Your task to perform on an android device: Open calendar and show me the third week of next month Image 0: 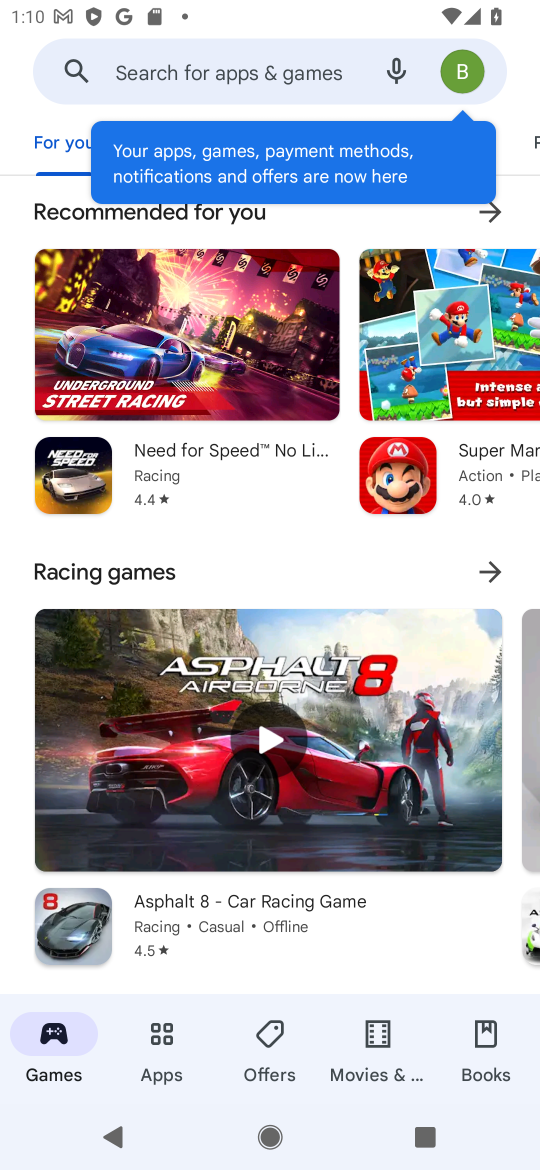
Step 0: press home button
Your task to perform on an android device: Open calendar and show me the third week of next month Image 1: 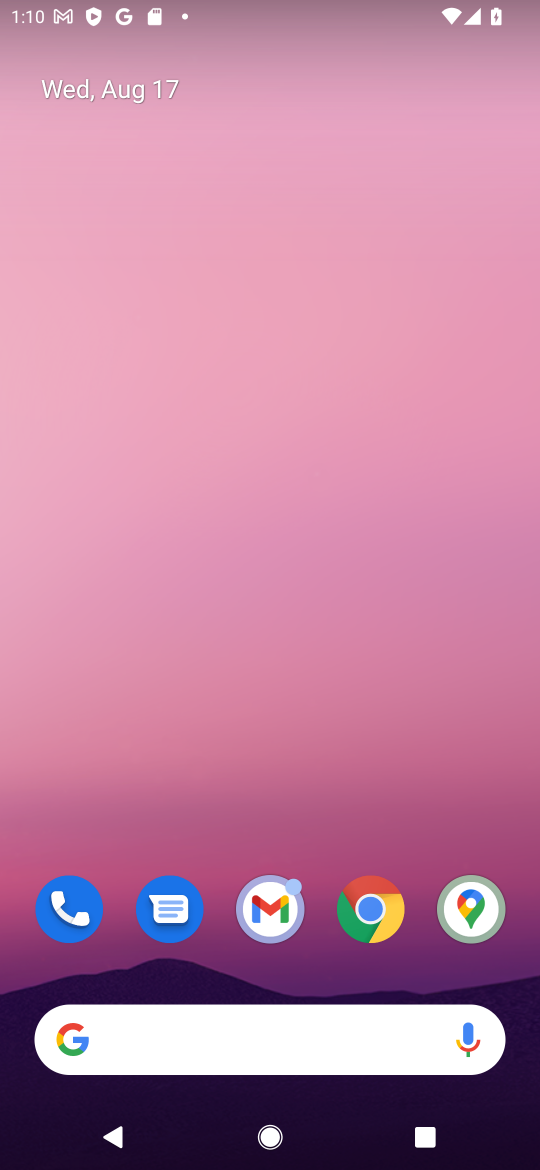
Step 1: drag from (243, 776) to (264, 312)
Your task to perform on an android device: Open calendar and show me the third week of next month Image 2: 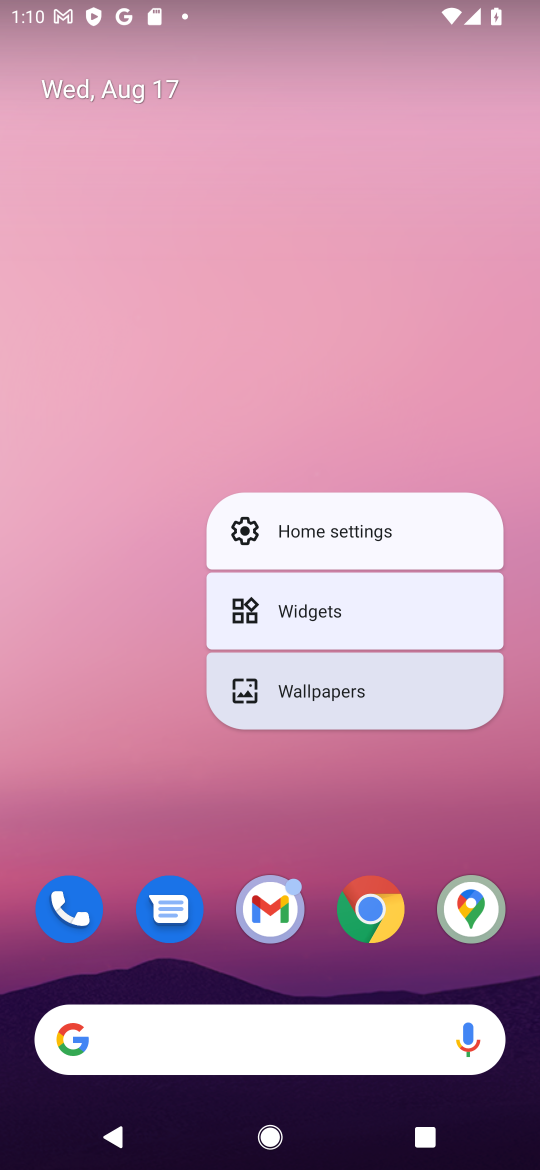
Step 2: click (133, 791)
Your task to perform on an android device: Open calendar and show me the third week of next month Image 3: 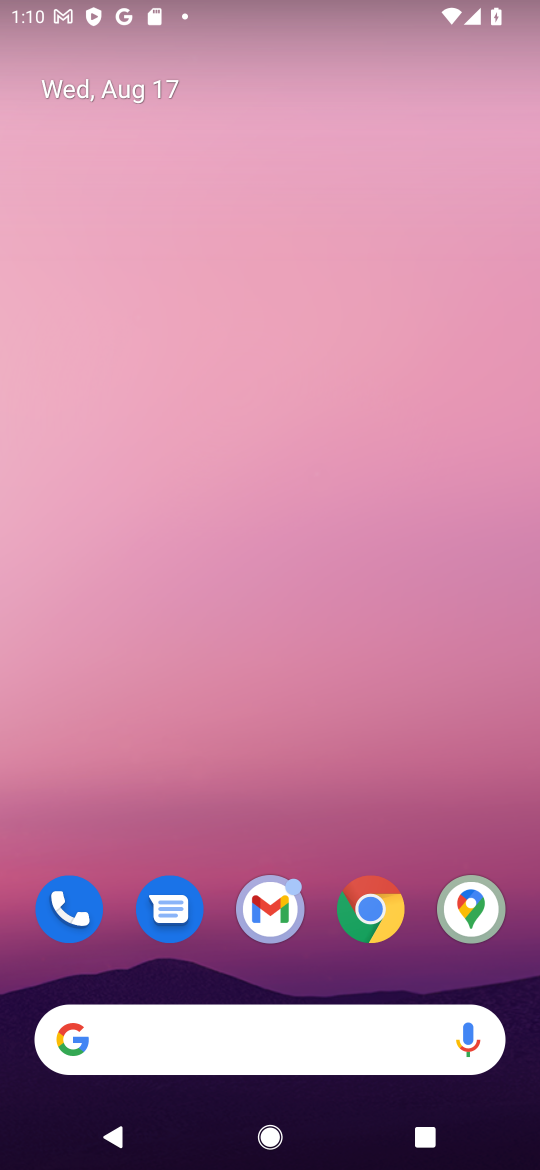
Step 3: task complete